Your task to perform on an android device: Open calendar and show me the second week of next month Image 0: 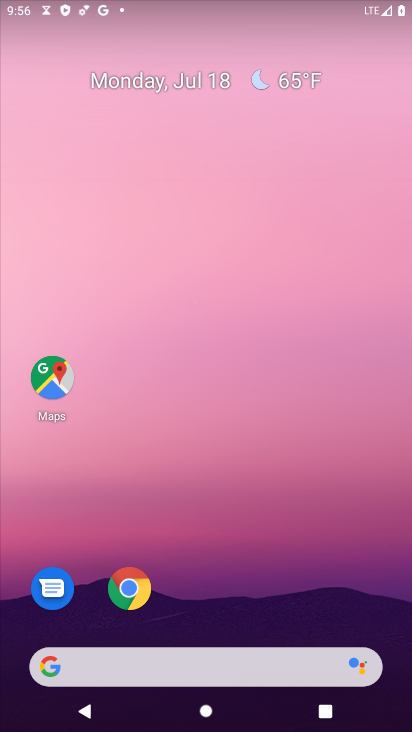
Step 0: drag from (221, 670) to (357, 74)
Your task to perform on an android device: Open calendar and show me the second week of next month Image 1: 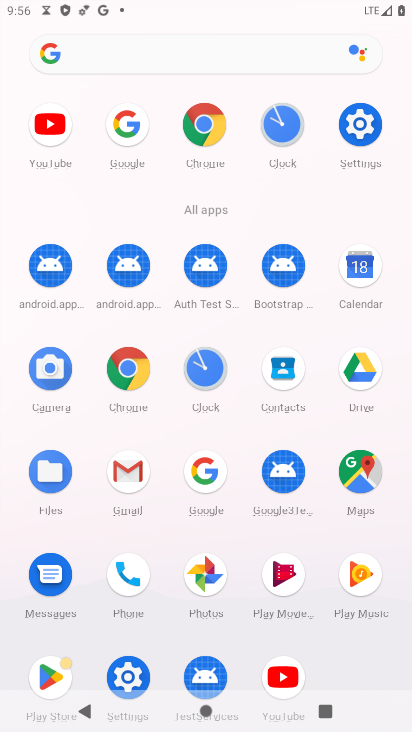
Step 1: click (356, 266)
Your task to perform on an android device: Open calendar and show me the second week of next month Image 2: 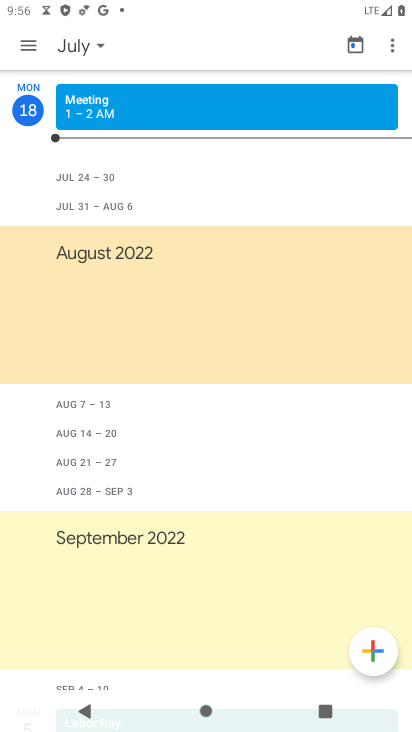
Step 2: click (357, 41)
Your task to perform on an android device: Open calendar and show me the second week of next month Image 3: 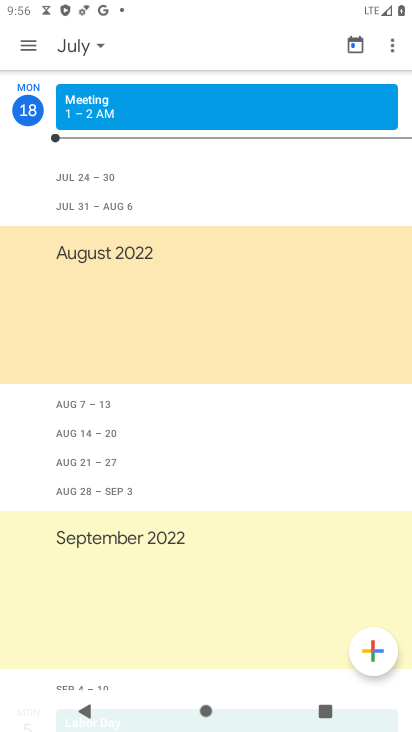
Step 3: click (356, 47)
Your task to perform on an android device: Open calendar and show me the second week of next month Image 4: 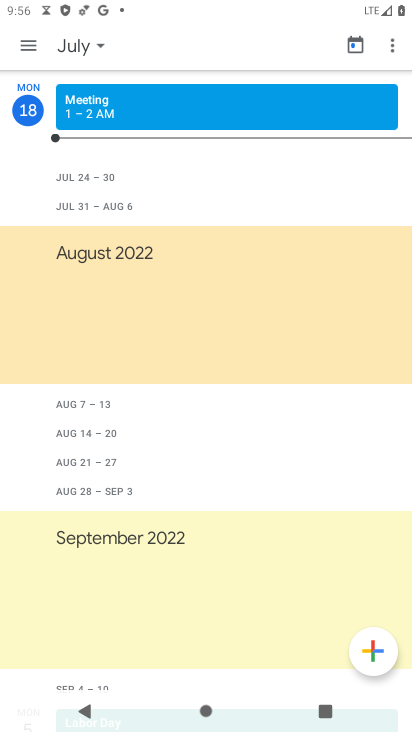
Step 4: click (101, 43)
Your task to perform on an android device: Open calendar and show me the second week of next month Image 5: 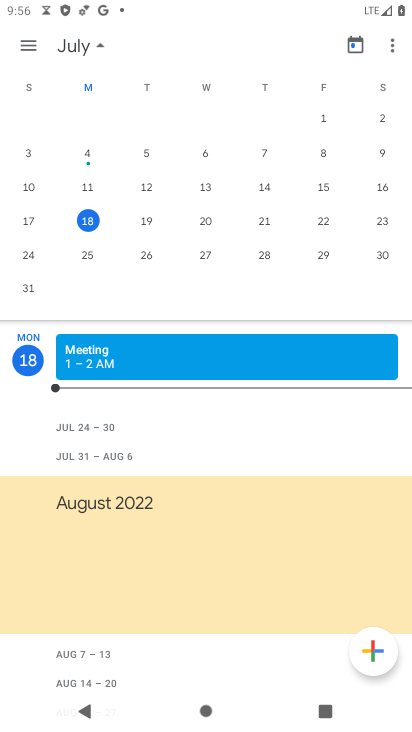
Step 5: drag from (395, 225) to (13, 232)
Your task to perform on an android device: Open calendar and show me the second week of next month Image 6: 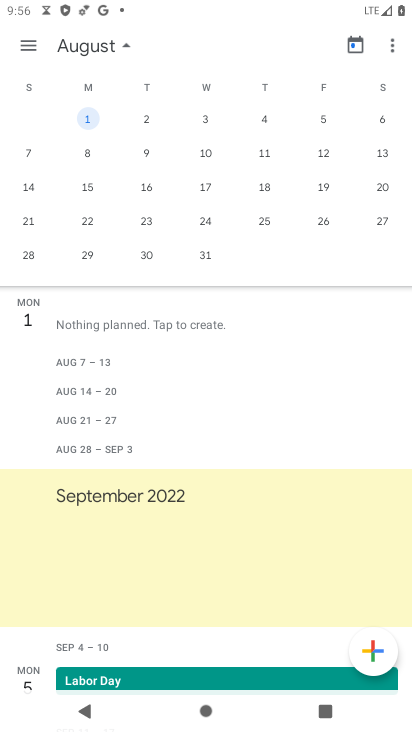
Step 6: click (84, 159)
Your task to perform on an android device: Open calendar and show me the second week of next month Image 7: 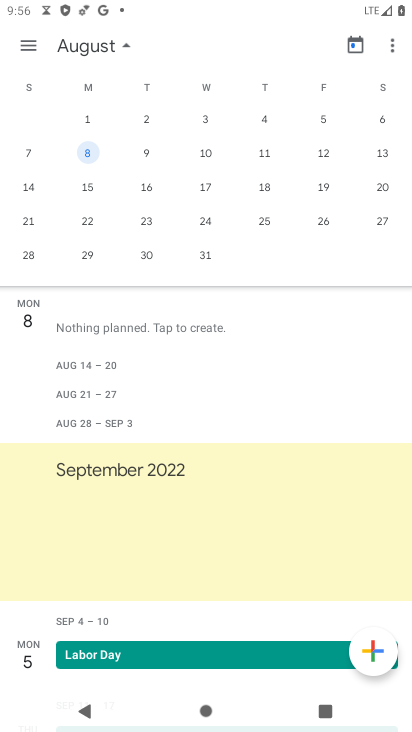
Step 7: click (21, 40)
Your task to perform on an android device: Open calendar and show me the second week of next month Image 8: 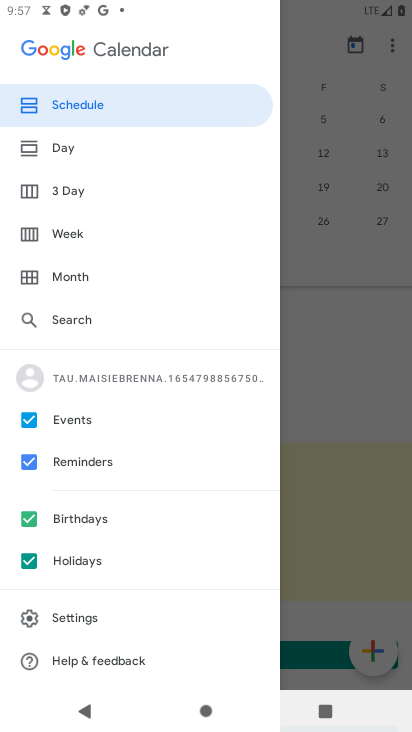
Step 8: click (55, 229)
Your task to perform on an android device: Open calendar and show me the second week of next month Image 9: 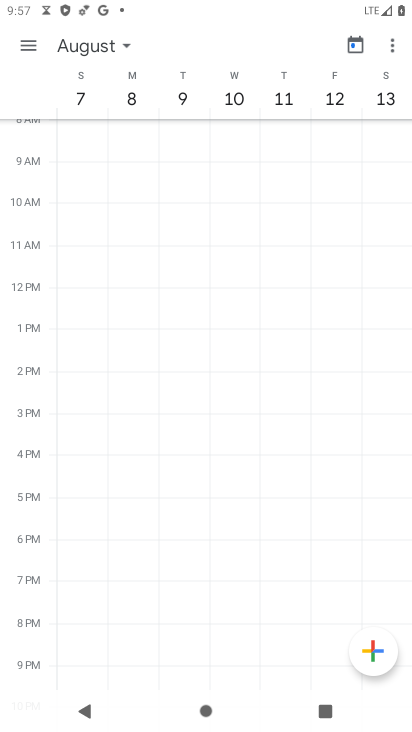
Step 9: task complete